Your task to perform on an android device: make emails show in primary in the gmail app Image 0: 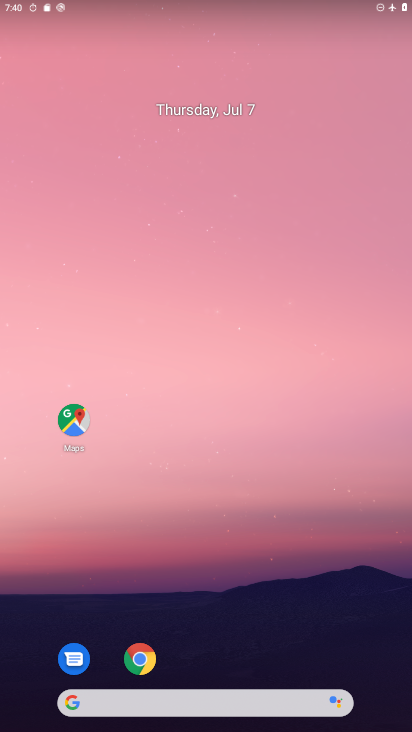
Step 0: drag from (362, 676) to (280, 0)
Your task to perform on an android device: make emails show in primary in the gmail app Image 1: 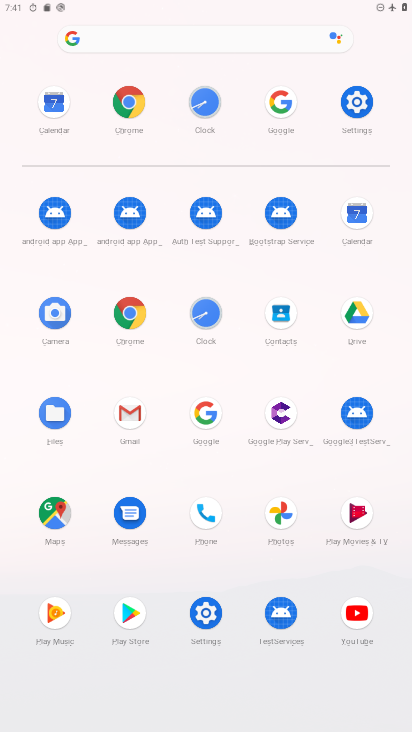
Step 1: click (129, 415)
Your task to perform on an android device: make emails show in primary in the gmail app Image 2: 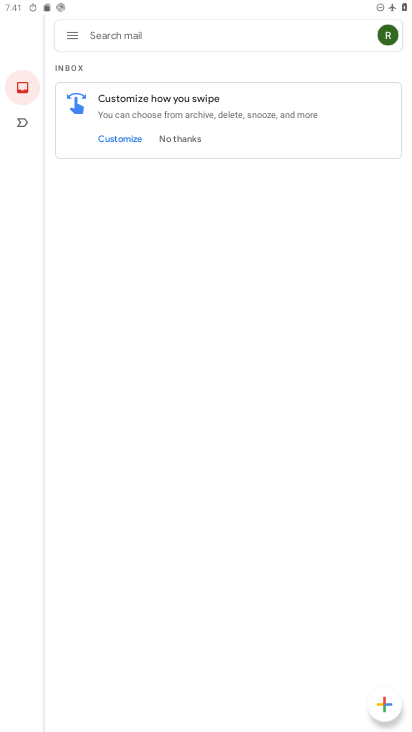
Step 2: task complete